Your task to perform on an android device: show emergency info Image 0: 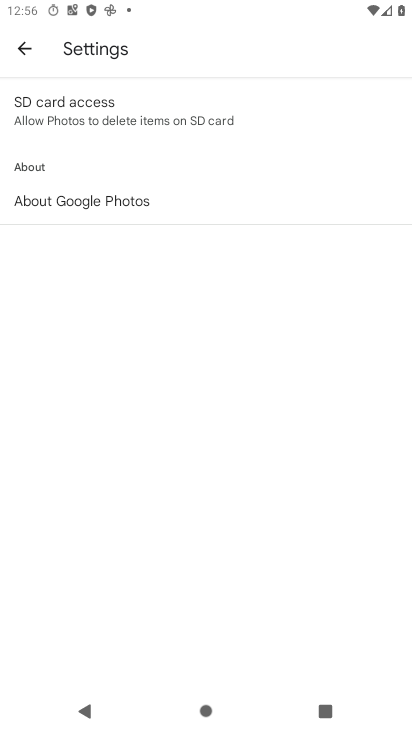
Step 0: press home button
Your task to perform on an android device: show emergency info Image 1: 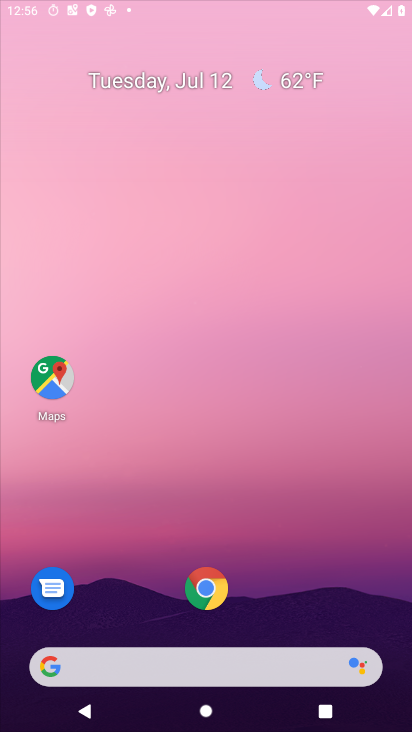
Step 1: press home button
Your task to perform on an android device: show emergency info Image 2: 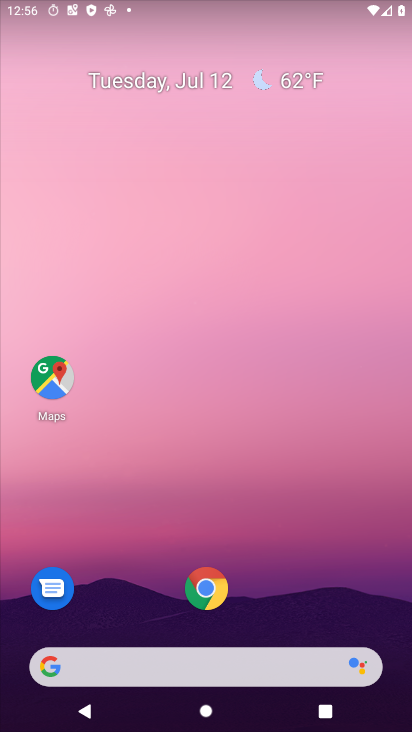
Step 2: click (161, 22)
Your task to perform on an android device: show emergency info Image 3: 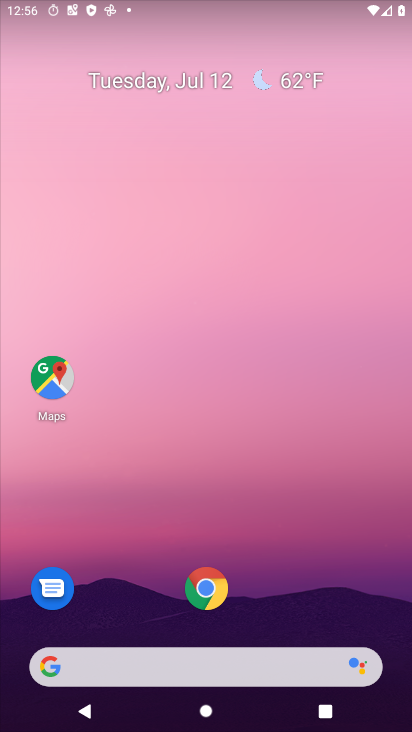
Step 3: drag from (163, 632) to (228, 34)
Your task to perform on an android device: show emergency info Image 4: 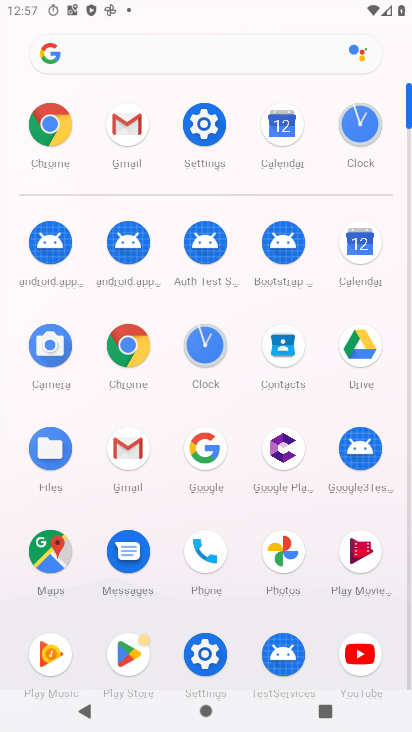
Step 4: click (203, 126)
Your task to perform on an android device: show emergency info Image 5: 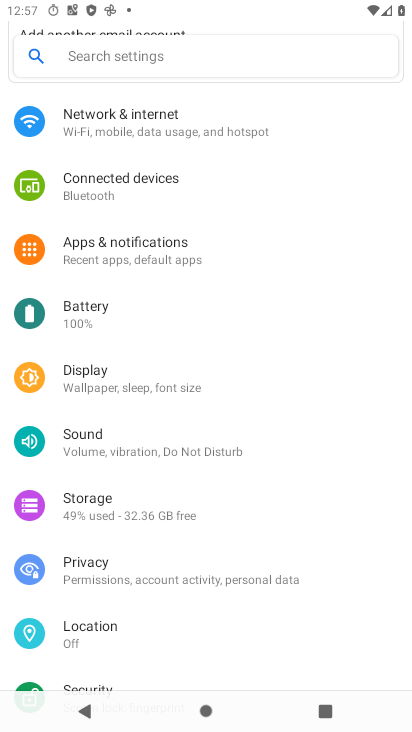
Step 5: drag from (121, 586) to (235, 87)
Your task to perform on an android device: show emergency info Image 6: 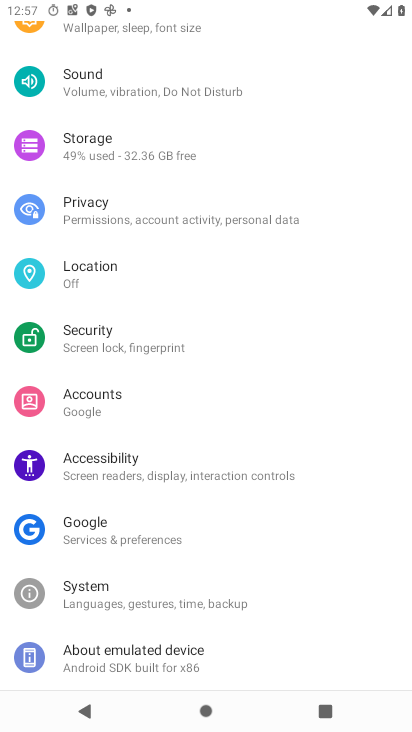
Step 6: click (83, 653)
Your task to perform on an android device: show emergency info Image 7: 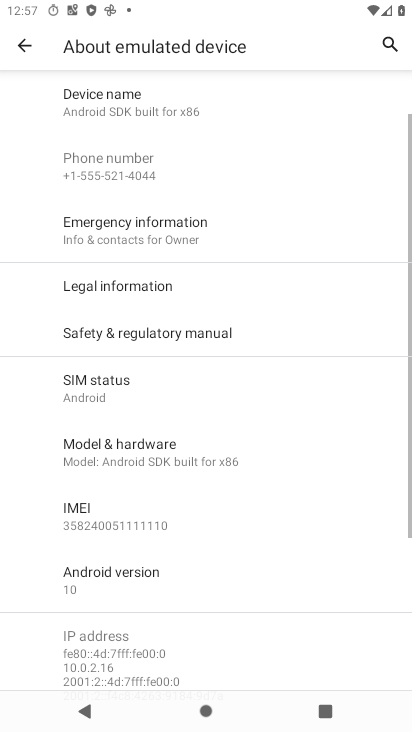
Step 7: click (113, 234)
Your task to perform on an android device: show emergency info Image 8: 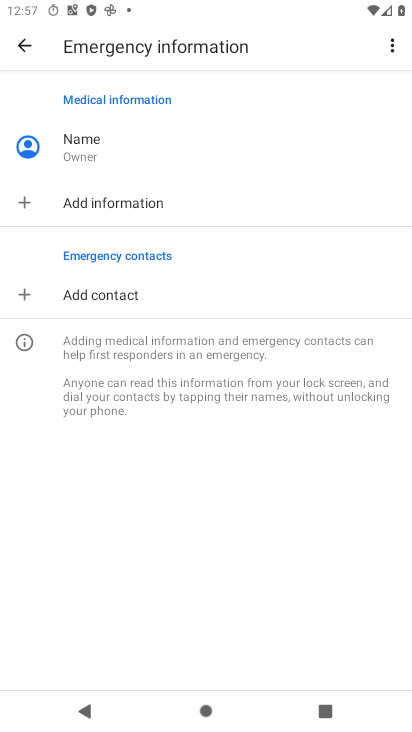
Step 8: task complete